Your task to perform on an android device: Add "lg ultragear" to the cart on ebay.com Image 0: 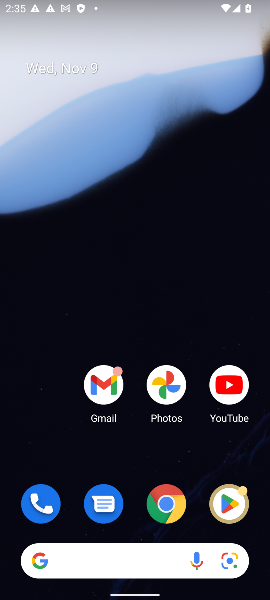
Step 0: click (163, 509)
Your task to perform on an android device: Add "lg ultragear" to the cart on ebay.com Image 1: 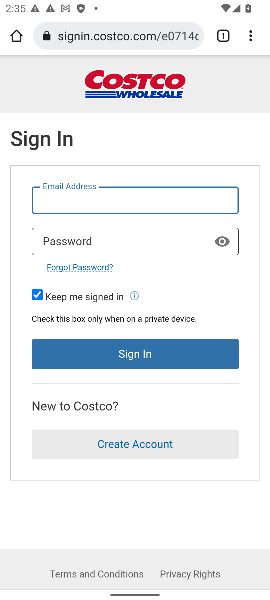
Step 1: click (95, 41)
Your task to perform on an android device: Add "lg ultragear" to the cart on ebay.com Image 2: 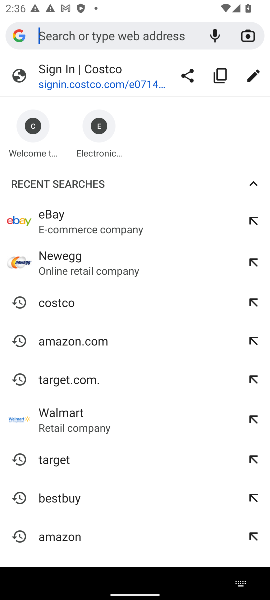
Step 2: click (54, 228)
Your task to perform on an android device: Add "lg ultragear" to the cart on ebay.com Image 3: 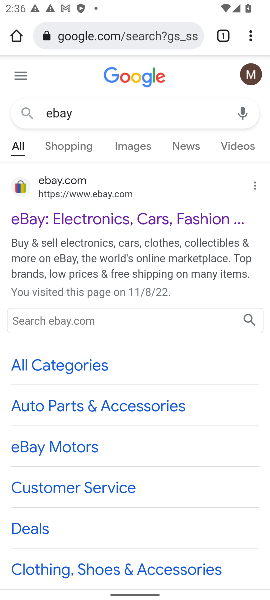
Step 3: click (38, 232)
Your task to perform on an android device: Add "lg ultragear" to the cart on ebay.com Image 4: 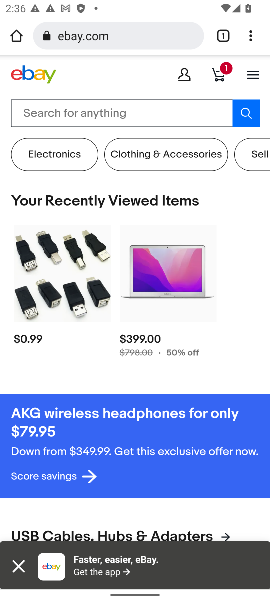
Step 4: click (55, 116)
Your task to perform on an android device: Add "lg ultragear" to the cart on ebay.com Image 5: 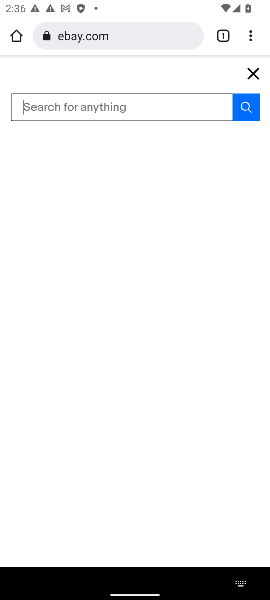
Step 5: type "lg ultragear"
Your task to perform on an android device: Add "lg ultragear" to the cart on ebay.com Image 6: 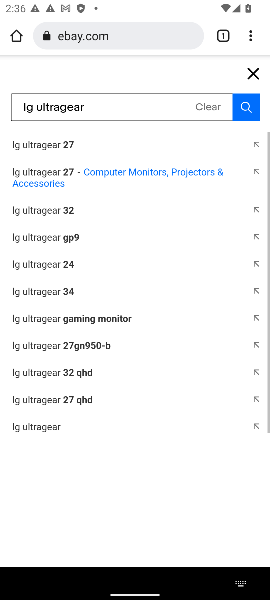
Step 6: click (40, 429)
Your task to perform on an android device: Add "lg ultragear" to the cart on ebay.com Image 7: 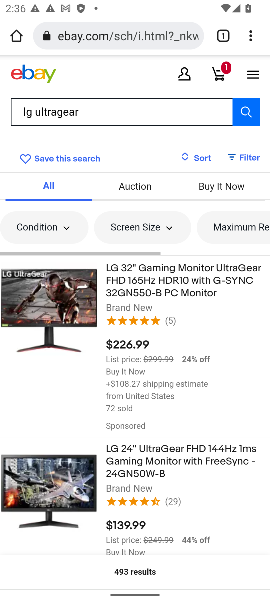
Step 7: click (77, 316)
Your task to perform on an android device: Add "lg ultragear" to the cart on ebay.com Image 8: 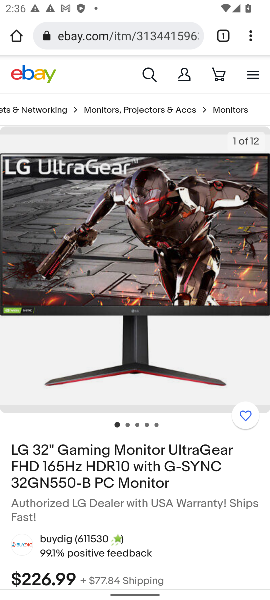
Step 8: drag from (108, 439) to (114, 137)
Your task to perform on an android device: Add "lg ultragear" to the cart on ebay.com Image 9: 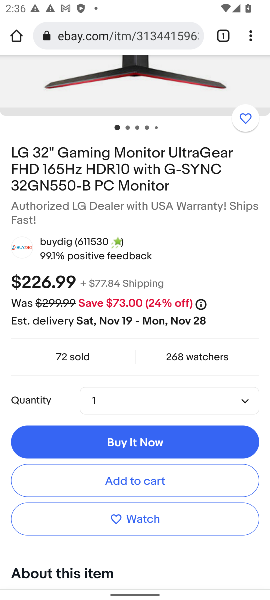
Step 9: click (121, 488)
Your task to perform on an android device: Add "lg ultragear" to the cart on ebay.com Image 10: 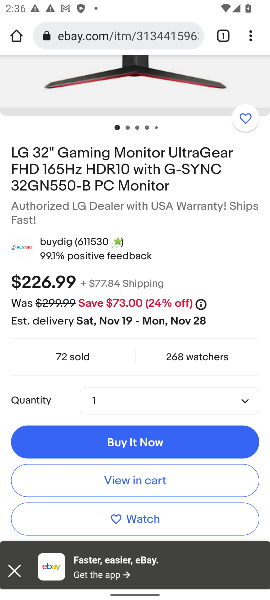
Step 10: task complete